Your task to perform on an android device: toggle pop-ups in chrome Image 0: 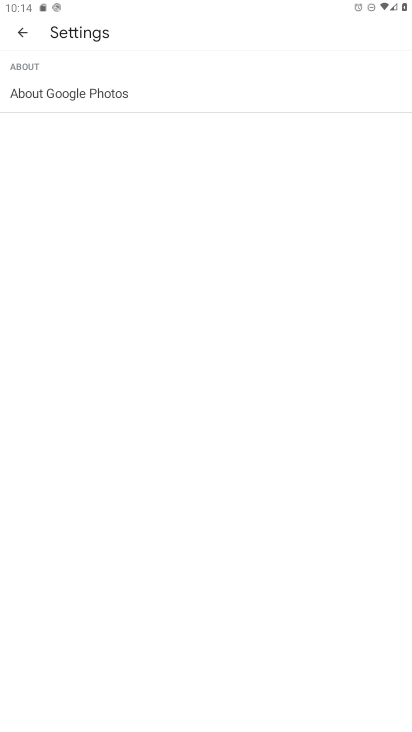
Step 0: press home button
Your task to perform on an android device: toggle pop-ups in chrome Image 1: 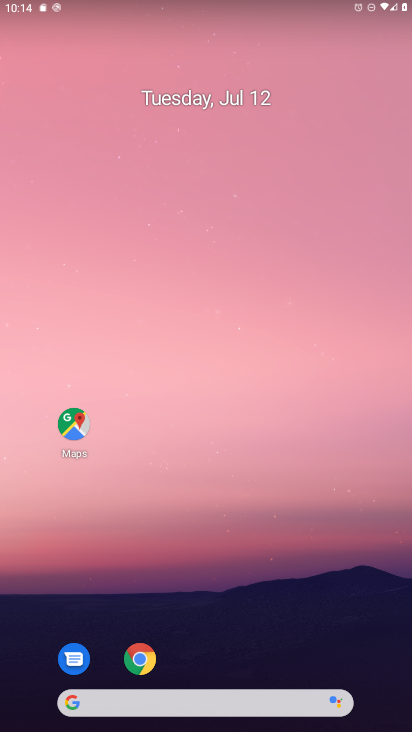
Step 1: click (152, 668)
Your task to perform on an android device: toggle pop-ups in chrome Image 2: 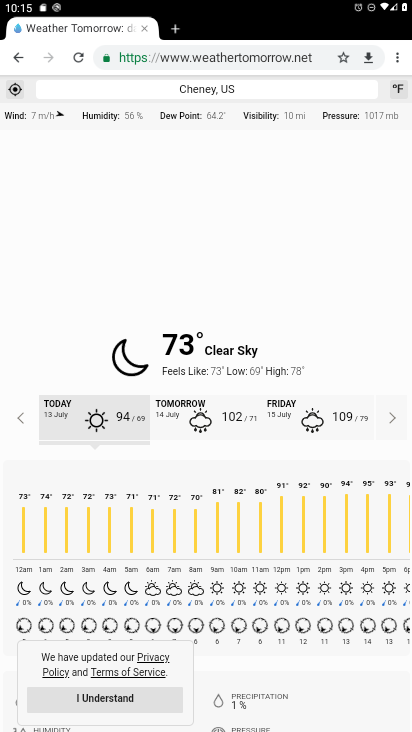
Step 2: drag from (399, 54) to (304, 380)
Your task to perform on an android device: toggle pop-ups in chrome Image 3: 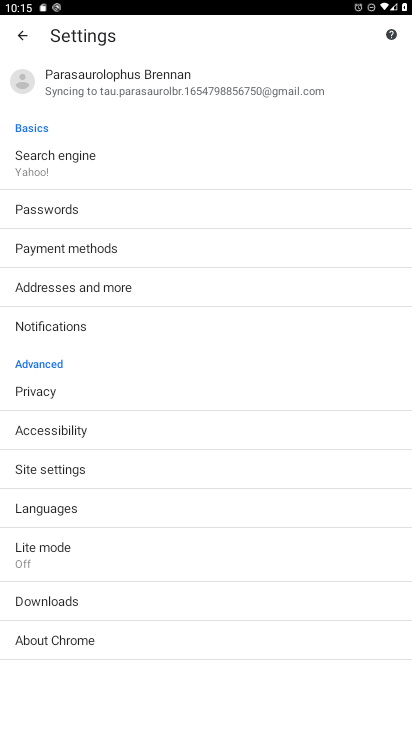
Step 3: click (82, 468)
Your task to perform on an android device: toggle pop-ups in chrome Image 4: 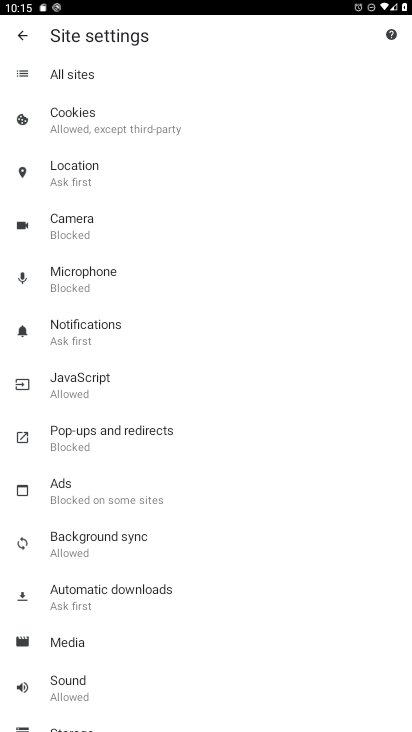
Step 4: click (100, 434)
Your task to perform on an android device: toggle pop-ups in chrome Image 5: 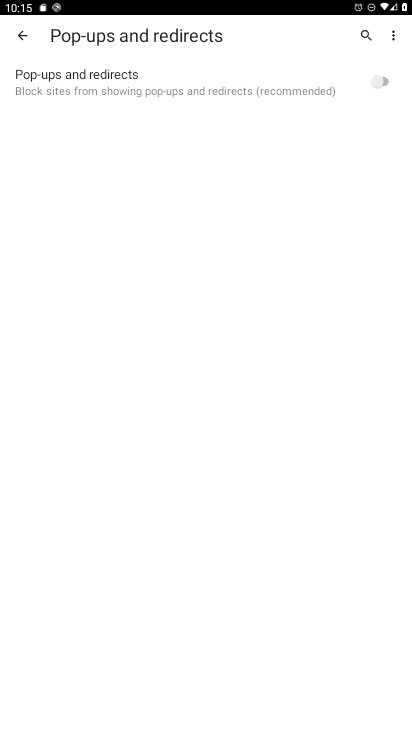
Step 5: click (385, 79)
Your task to perform on an android device: toggle pop-ups in chrome Image 6: 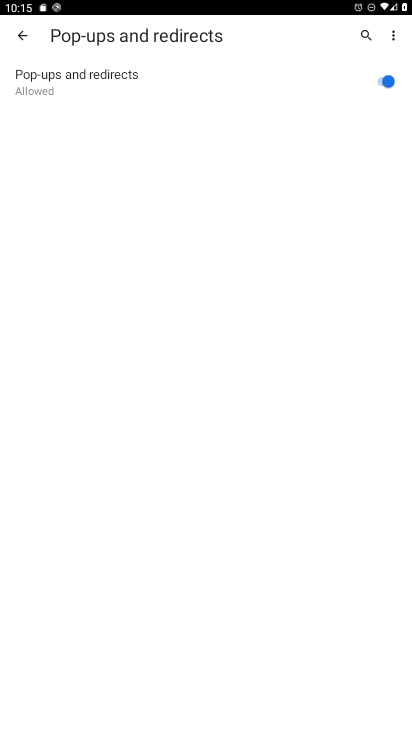
Step 6: task complete